Your task to perform on an android device: Open internet settings Image 0: 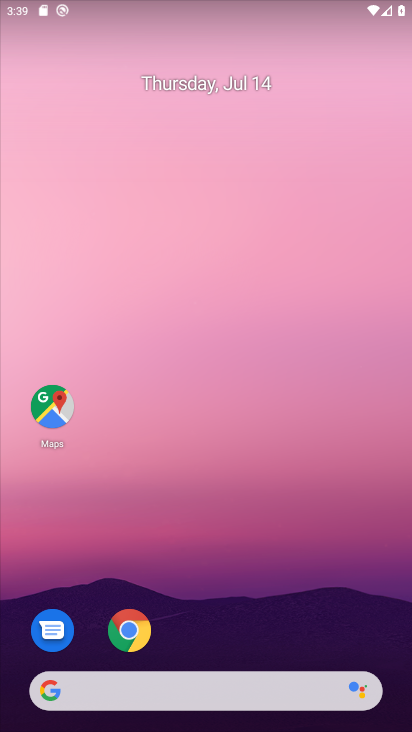
Step 0: drag from (232, 634) to (190, 155)
Your task to perform on an android device: Open internet settings Image 1: 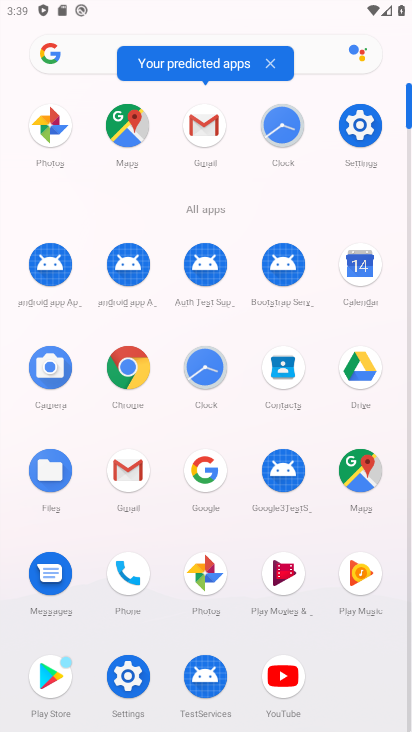
Step 1: click (366, 122)
Your task to perform on an android device: Open internet settings Image 2: 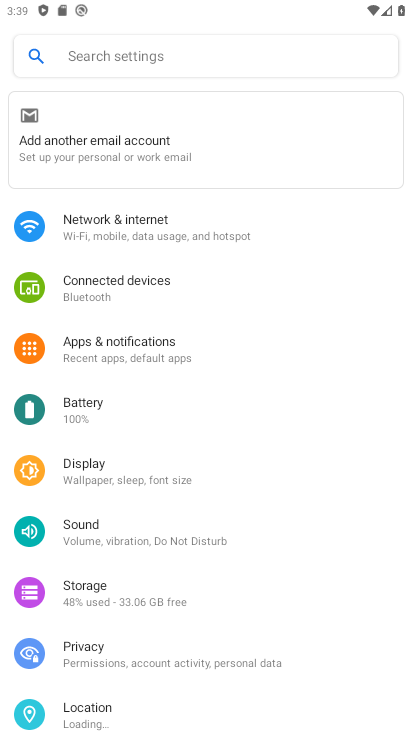
Step 2: click (192, 221)
Your task to perform on an android device: Open internet settings Image 3: 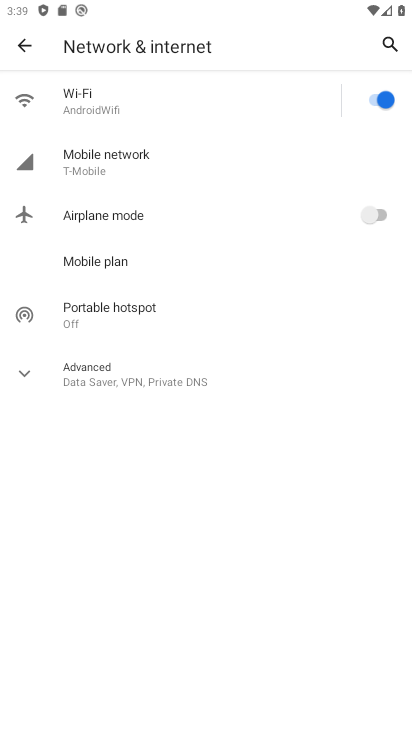
Step 3: task complete